Your task to perform on an android device: Open Google Image 0: 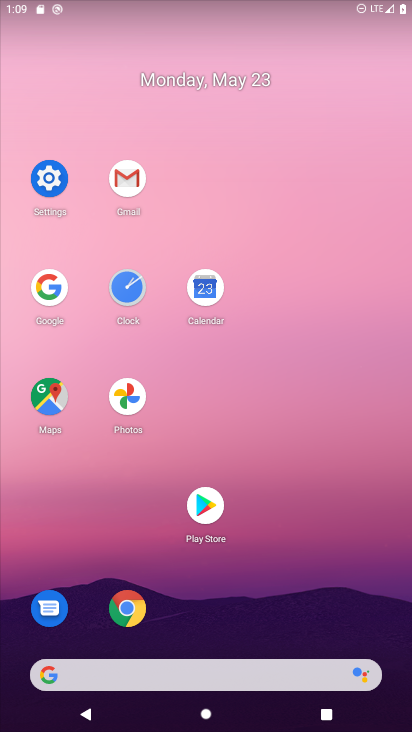
Step 0: click (50, 290)
Your task to perform on an android device: Open Google Image 1: 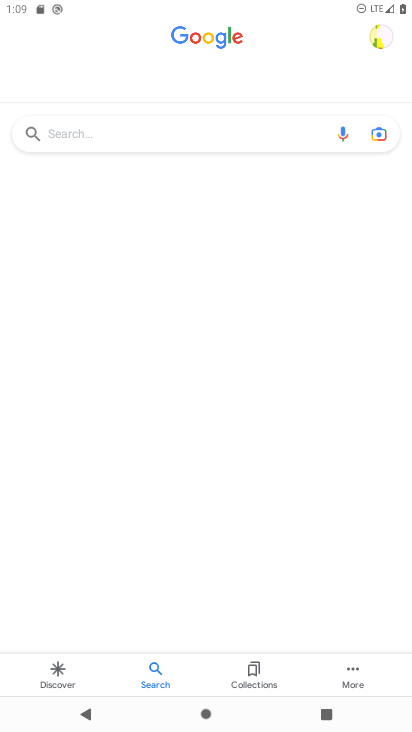
Step 1: task complete